Your task to perform on an android device: Open internet settings Image 0: 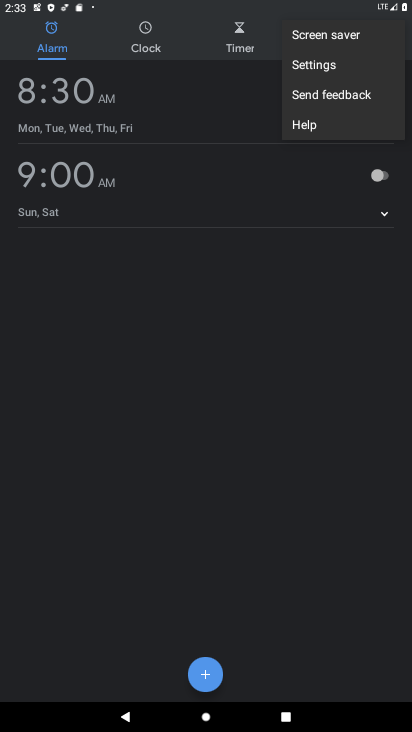
Step 0: press home button
Your task to perform on an android device: Open internet settings Image 1: 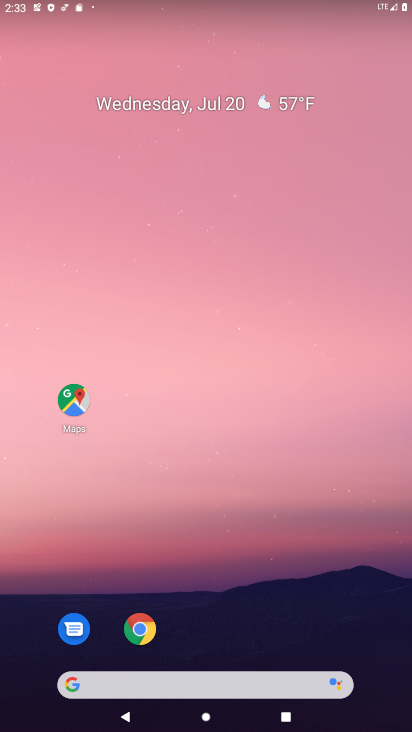
Step 1: drag from (195, 670) to (65, 8)
Your task to perform on an android device: Open internet settings Image 2: 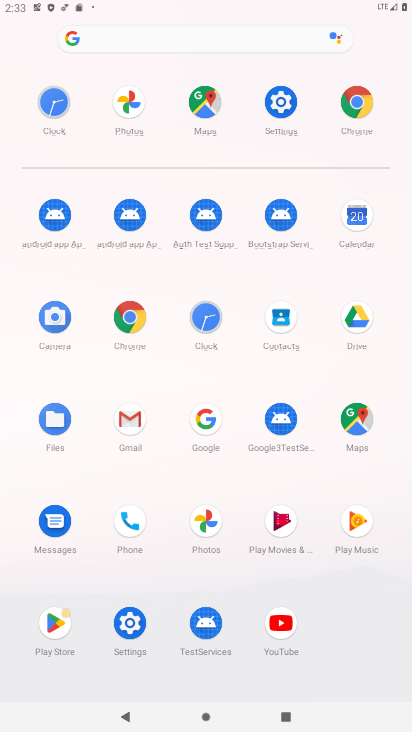
Step 2: click (275, 114)
Your task to perform on an android device: Open internet settings Image 3: 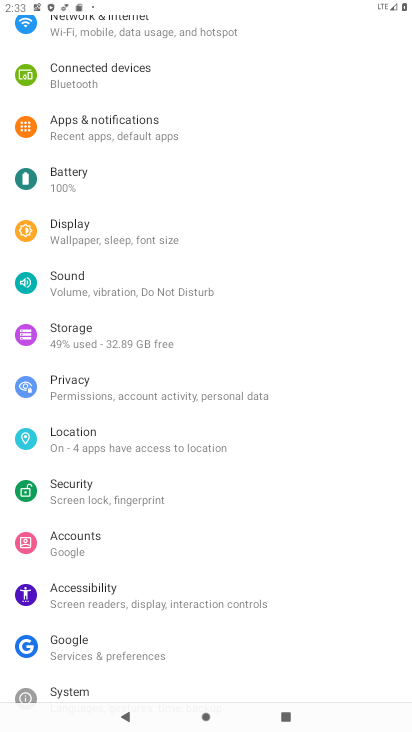
Step 3: click (114, 33)
Your task to perform on an android device: Open internet settings Image 4: 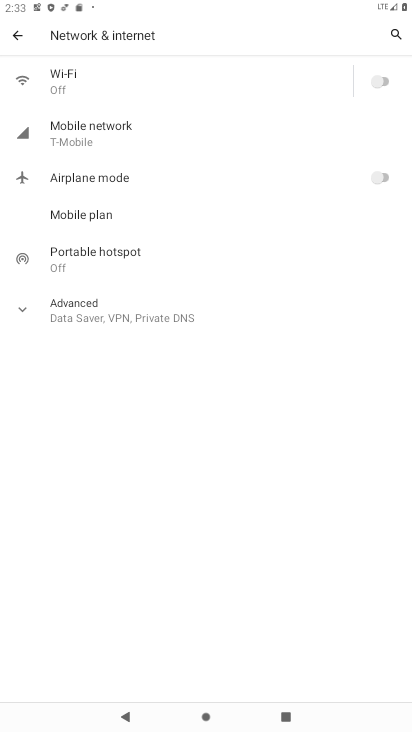
Step 4: task complete